Your task to perform on an android device: Go to display settings Image 0: 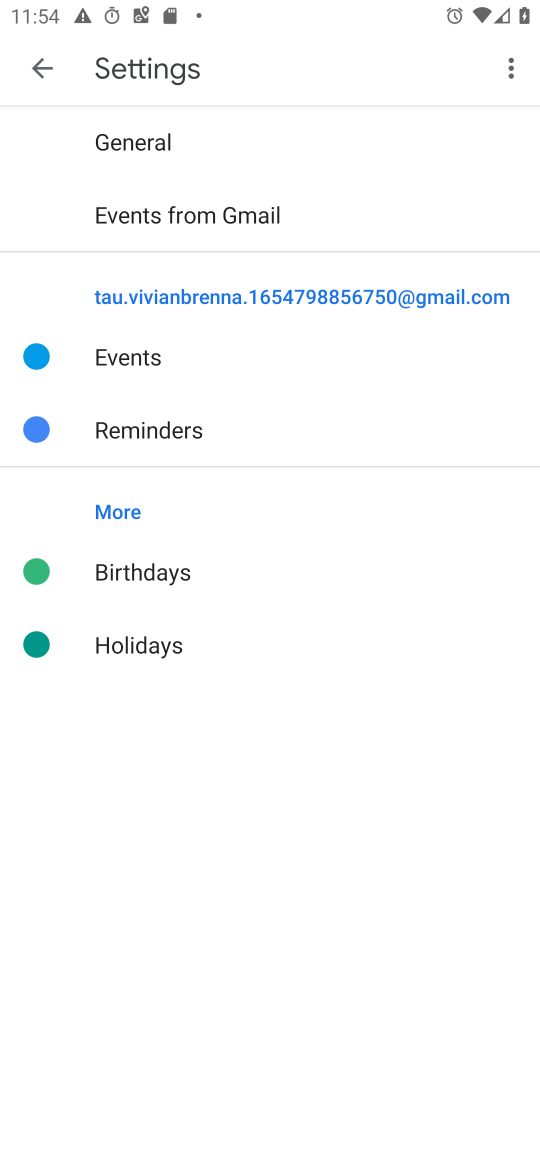
Step 0: press home button
Your task to perform on an android device: Go to display settings Image 1: 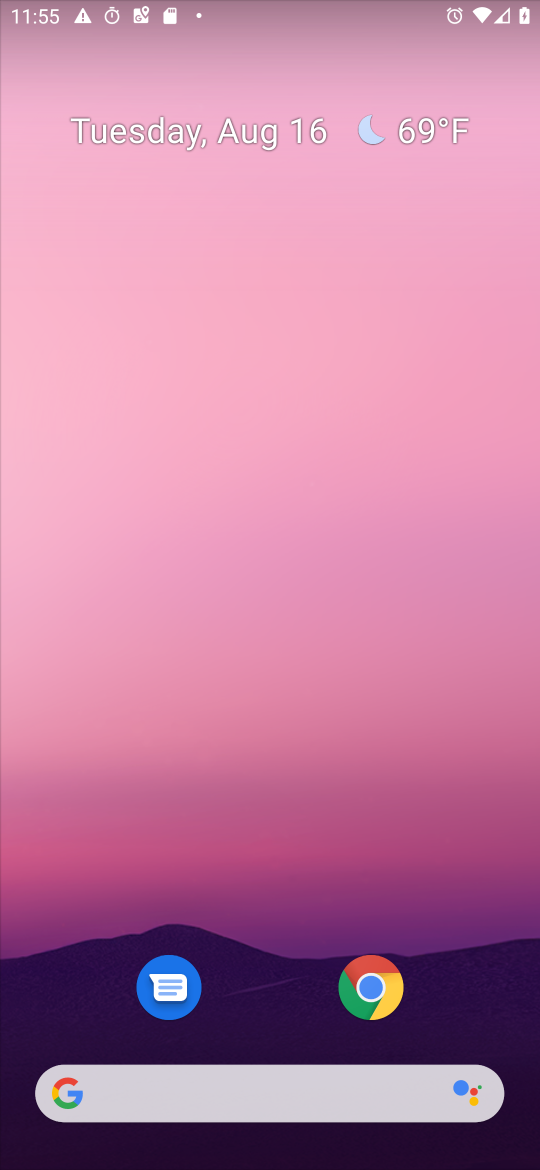
Step 1: drag from (33, 1127) to (363, 455)
Your task to perform on an android device: Go to display settings Image 2: 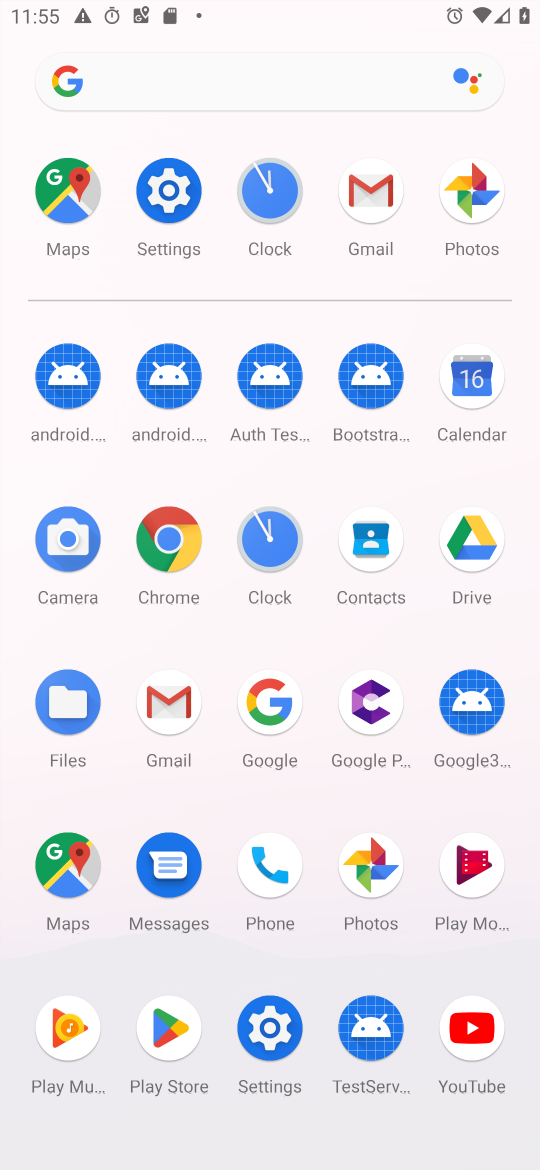
Step 2: click (269, 1036)
Your task to perform on an android device: Go to display settings Image 3: 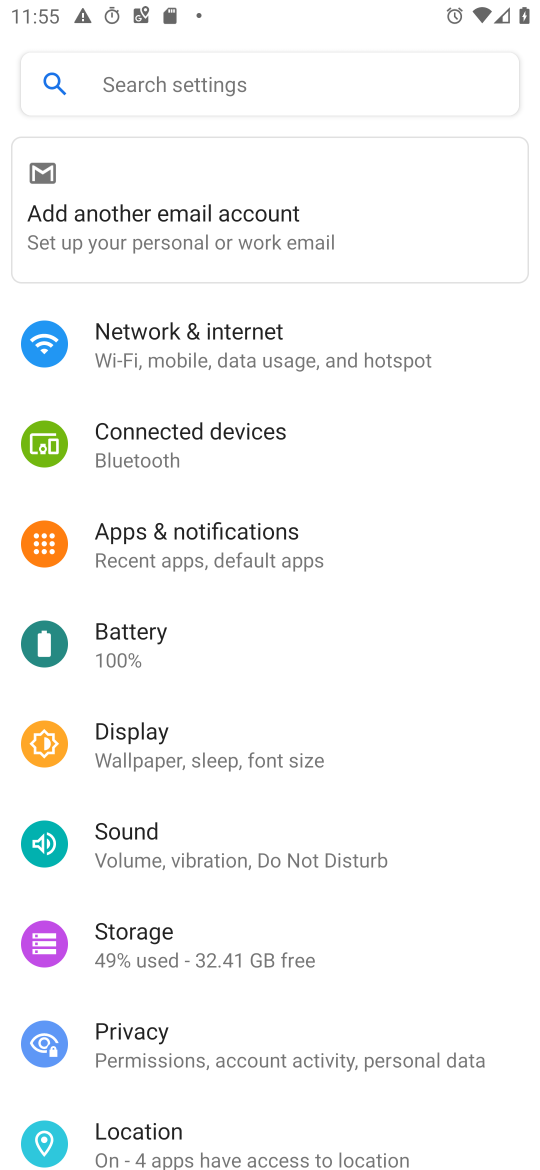
Step 3: click (156, 744)
Your task to perform on an android device: Go to display settings Image 4: 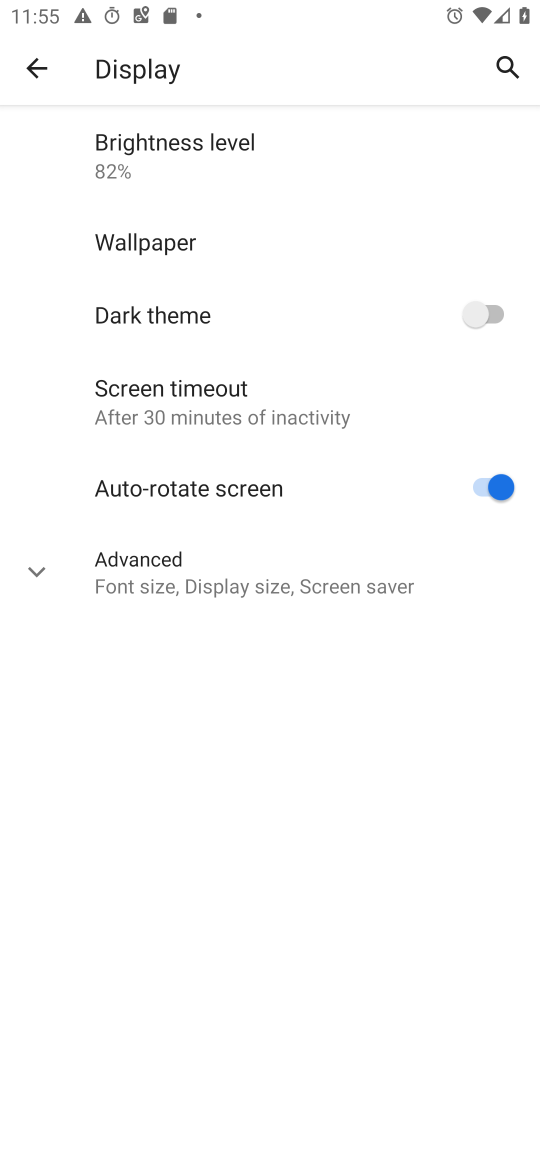
Step 4: task complete